Your task to perform on an android device: What is the news today? Image 0: 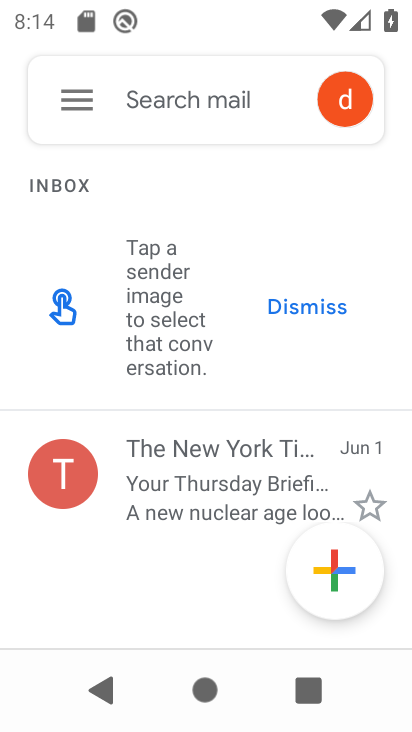
Step 0: press home button
Your task to perform on an android device: What is the news today? Image 1: 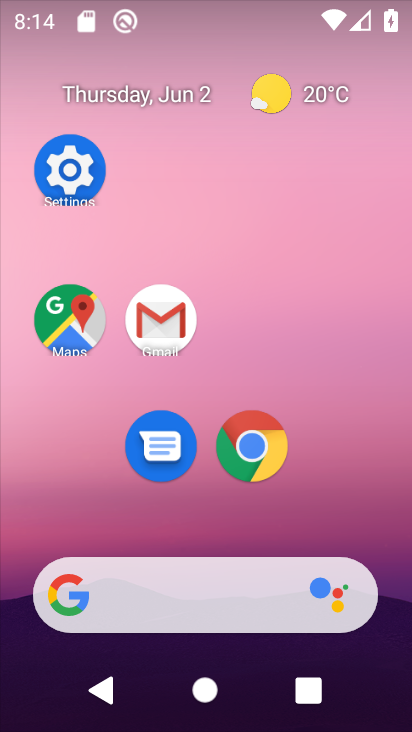
Step 1: drag from (248, 467) to (336, 15)
Your task to perform on an android device: What is the news today? Image 2: 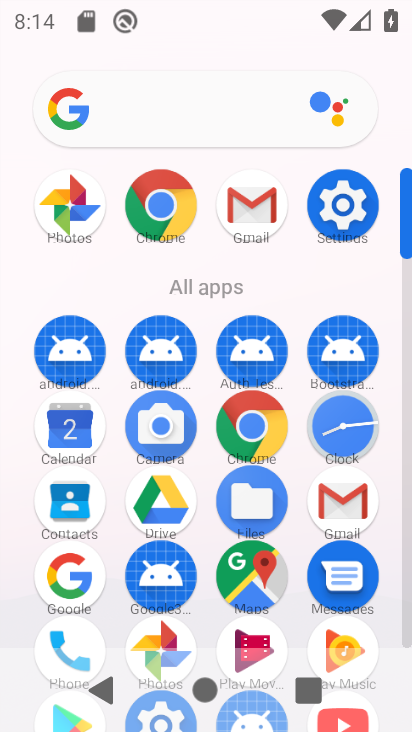
Step 2: drag from (69, 568) to (83, 256)
Your task to perform on an android device: What is the news today? Image 3: 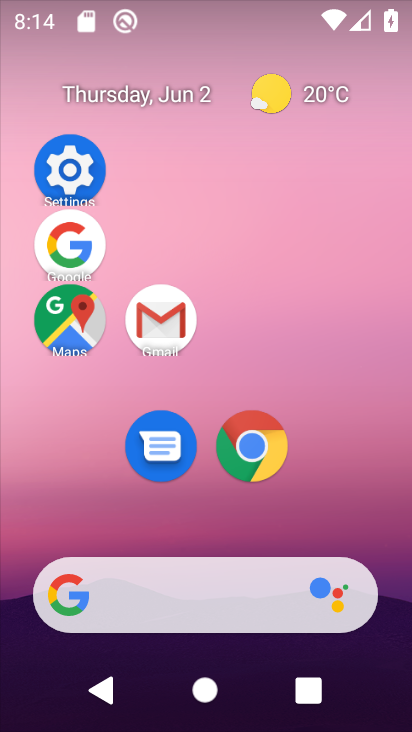
Step 3: click (77, 222)
Your task to perform on an android device: What is the news today? Image 4: 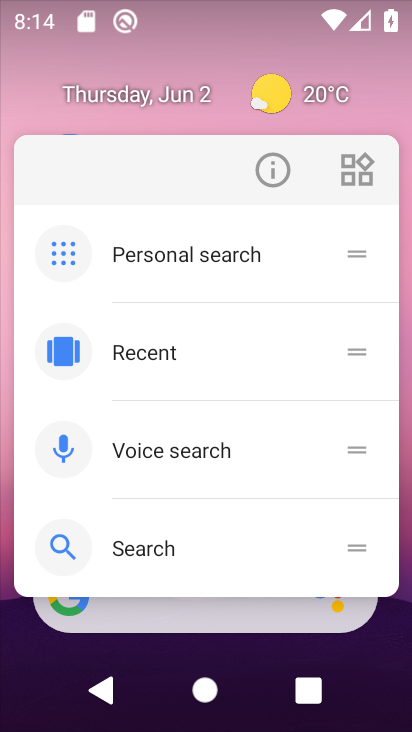
Step 4: click (398, 62)
Your task to perform on an android device: What is the news today? Image 5: 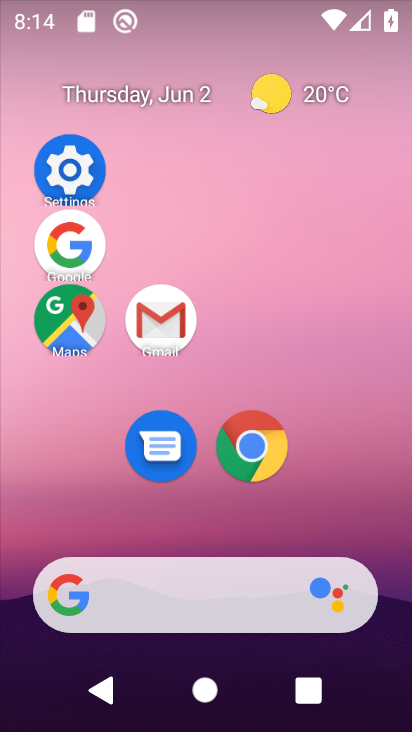
Step 5: click (69, 241)
Your task to perform on an android device: What is the news today? Image 6: 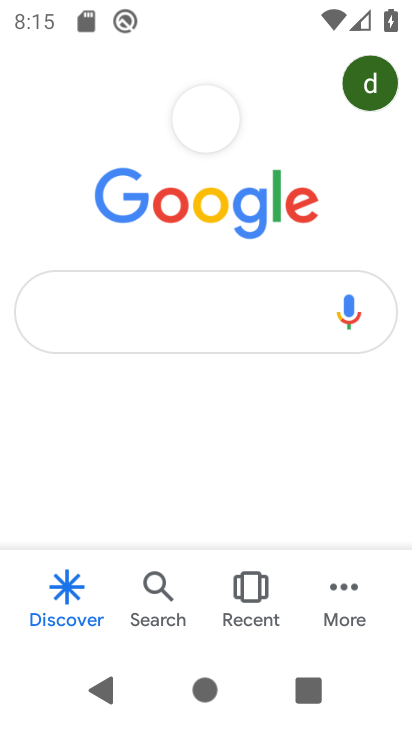
Step 6: click (156, 304)
Your task to perform on an android device: What is the news today? Image 7: 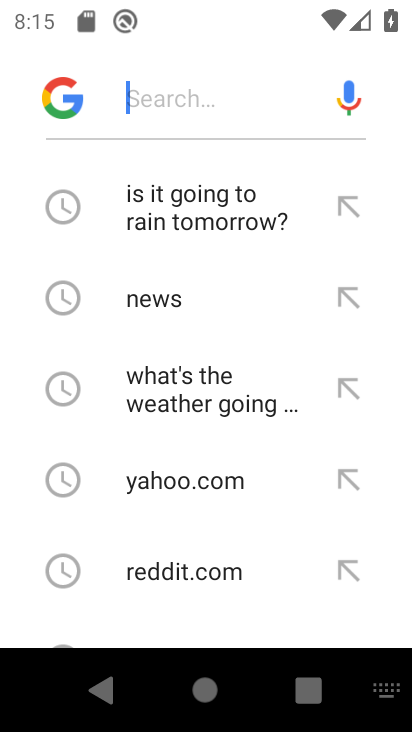
Step 7: drag from (199, 297) to (208, 196)
Your task to perform on an android device: What is the news today? Image 8: 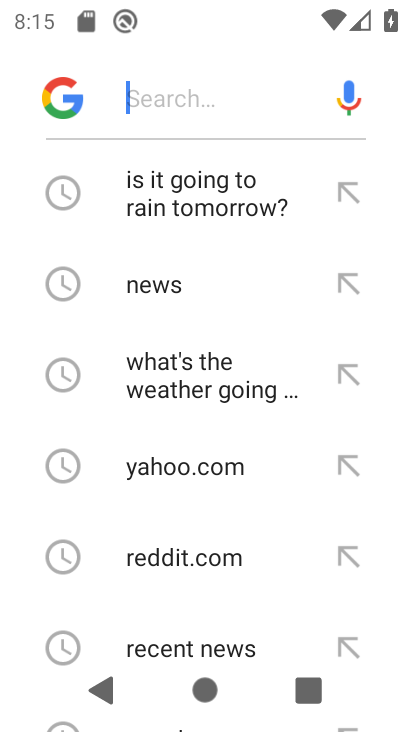
Step 8: drag from (202, 577) to (207, 196)
Your task to perform on an android device: What is the news today? Image 9: 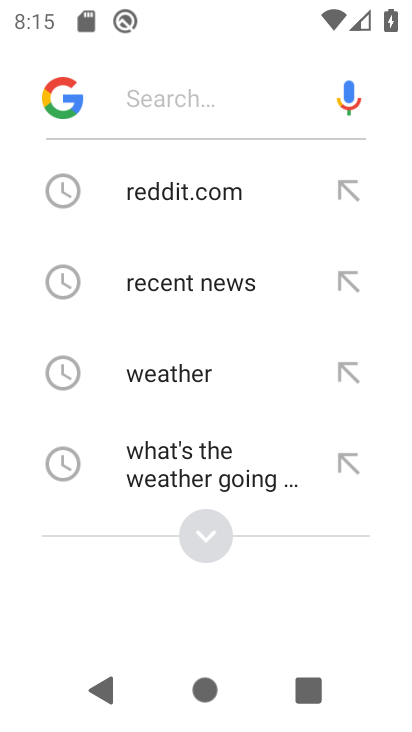
Step 9: drag from (195, 228) to (189, 542)
Your task to perform on an android device: What is the news today? Image 10: 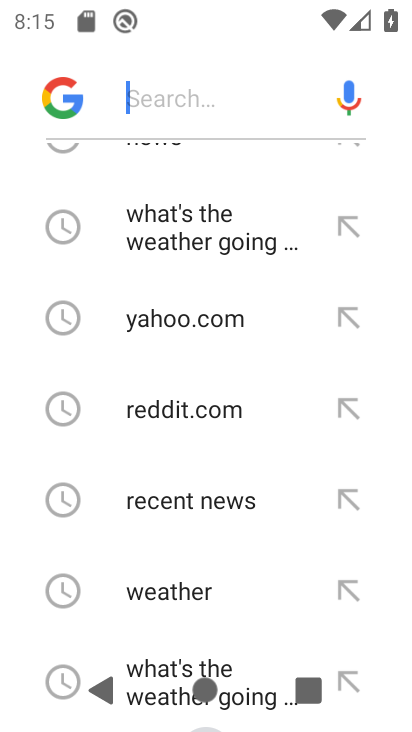
Step 10: drag from (190, 559) to (151, 156)
Your task to perform on an android device: What is the news today? Image 11: 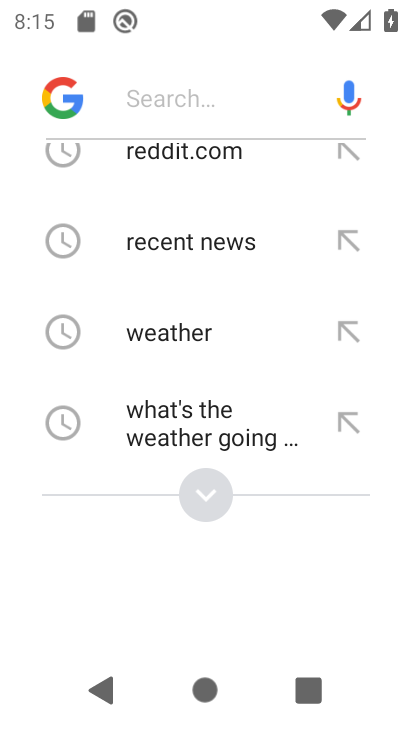
Step 11: click (206, 502)
Your task to perform on an android device: What is the news today? Image 12: 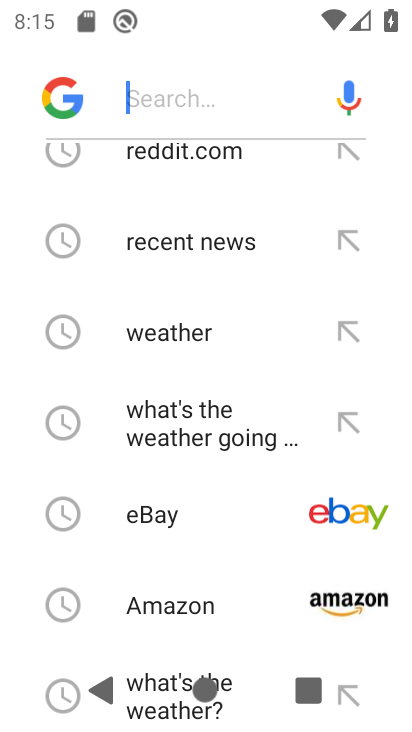
Step 12: drag from (195, 578) to (190, 257)
Your task to perform on an android device: What is the news today? Image 13: 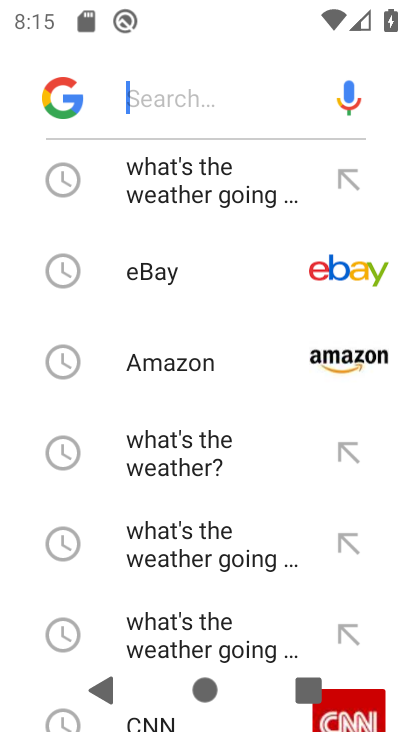
Step 13: drag from (213, 529) to (229, 102)
Your task to perform on an android device: What is the news today? Image 14: 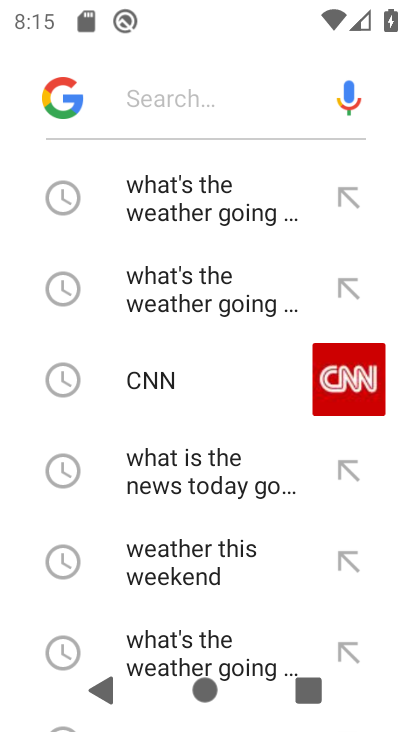
Step 14: click (191, 467)
Your task to perform on an android device: What is the news today? Image 15: 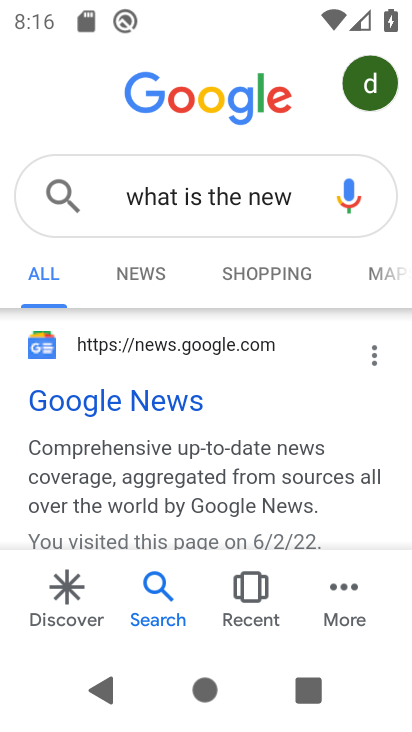
Step 15: task complete